Your task to perform on an android device: toggle priority inbox in the gmail app Image 0: 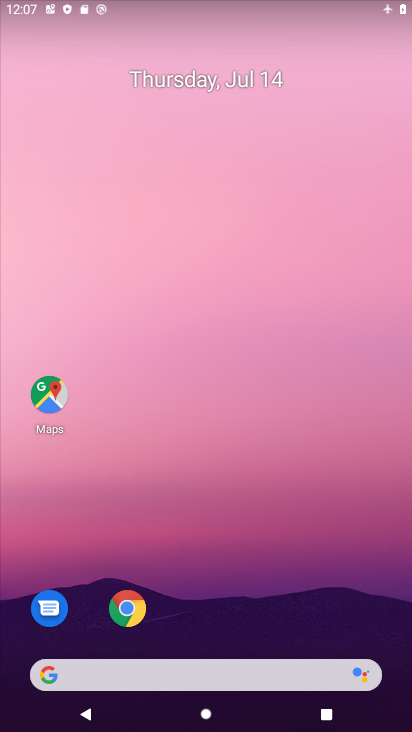
Step 0: drag from (253, 720) to (302, 118)
Your task to perform on an android device: toggle priority inbox in the gmail app Image 1: 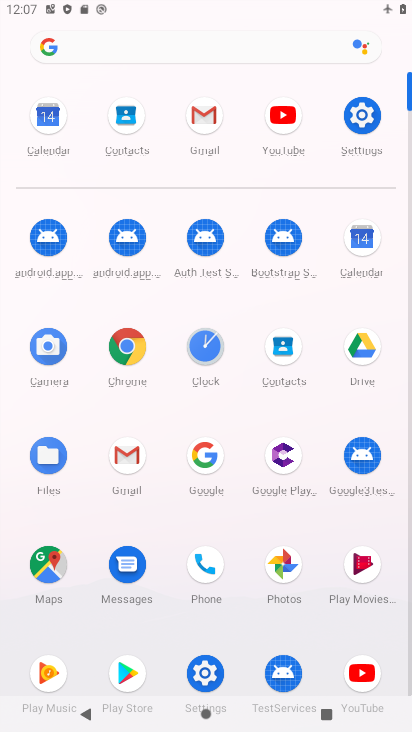
Step 1: click (210, 122)
Your task to perform on an android device: toggle priority inbox in the gmail app Image 2: 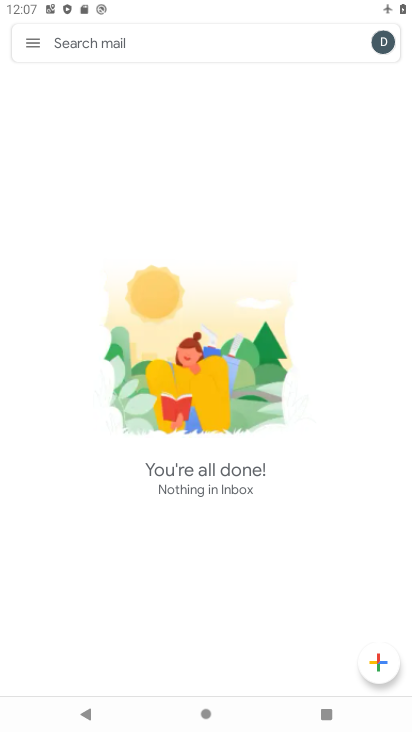
Step 2: click (34, 40)
Your task to perform on an android device: toggle priority inbox in the gmail app Image 3: 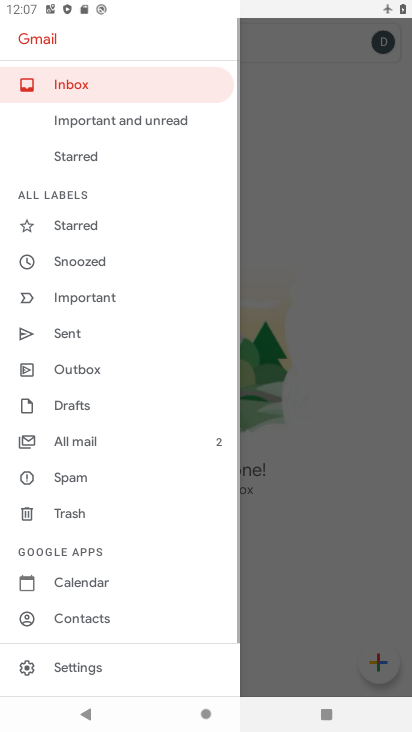
Step 3: drag from (120, 644) to (127, 46)
Your task to perform on an android device: toggle priority inbox in the gmail app Image 4: 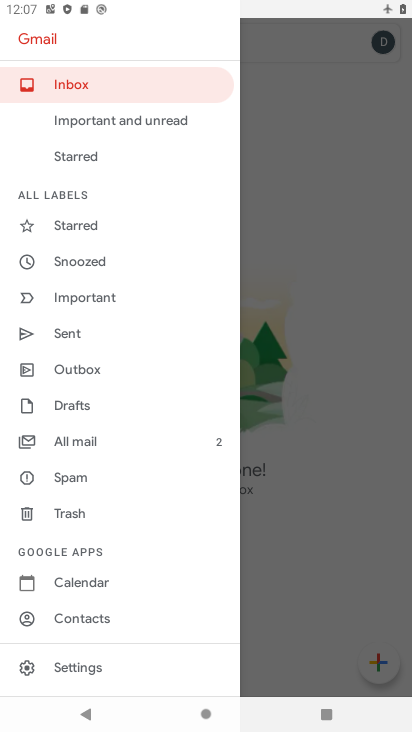
Step 4: click (51, 665)
Your task to perform on an android device: toggle priority inbox in the gmail app Image 5: 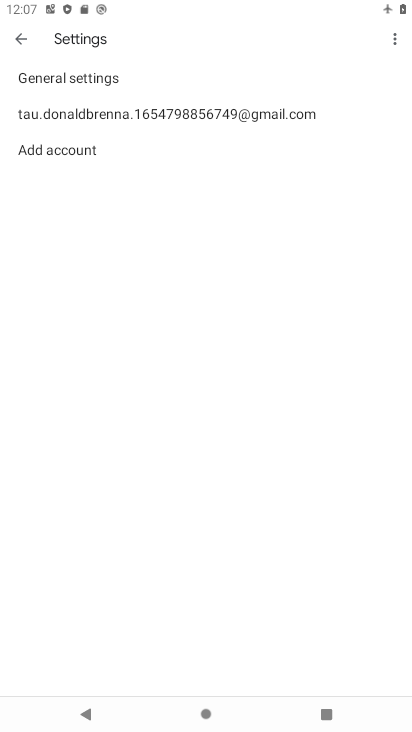
Step 5: click (52, 110)
Your task to perform on an android device: toggle priority inbox in the gmail app Image 6: 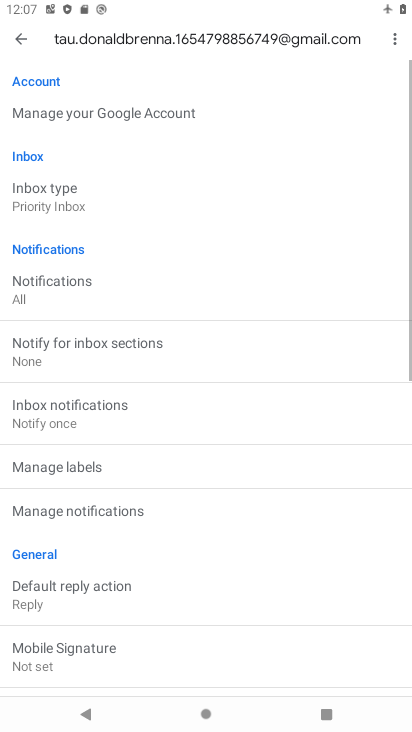
Step 6: click (75, 197)
Your task to perform on an android device: toggle priority inbox in the gmail app Image 7: 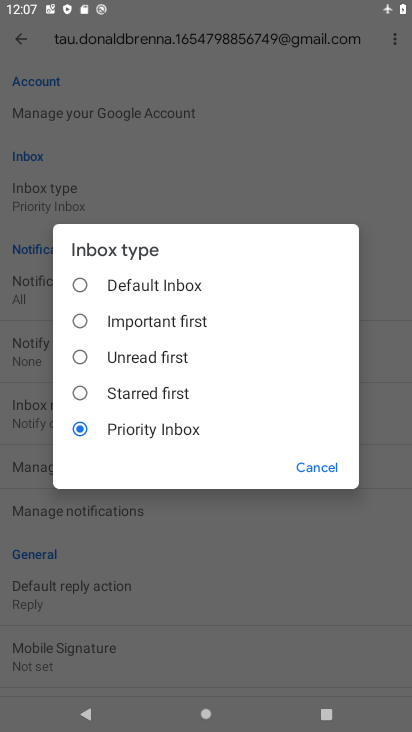
Step 7: click (79, 284)
Your task to perform on an android device: toggle priority inbox in the gmail app Image 8: 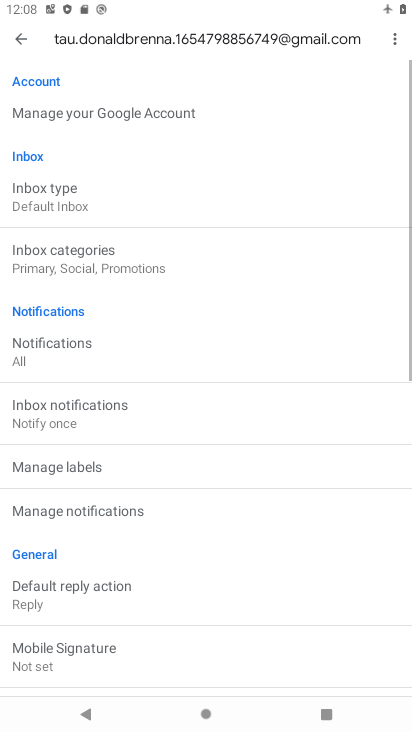
Step 8: task complete